Your task to perform on an android device: Check the weather Image 0: 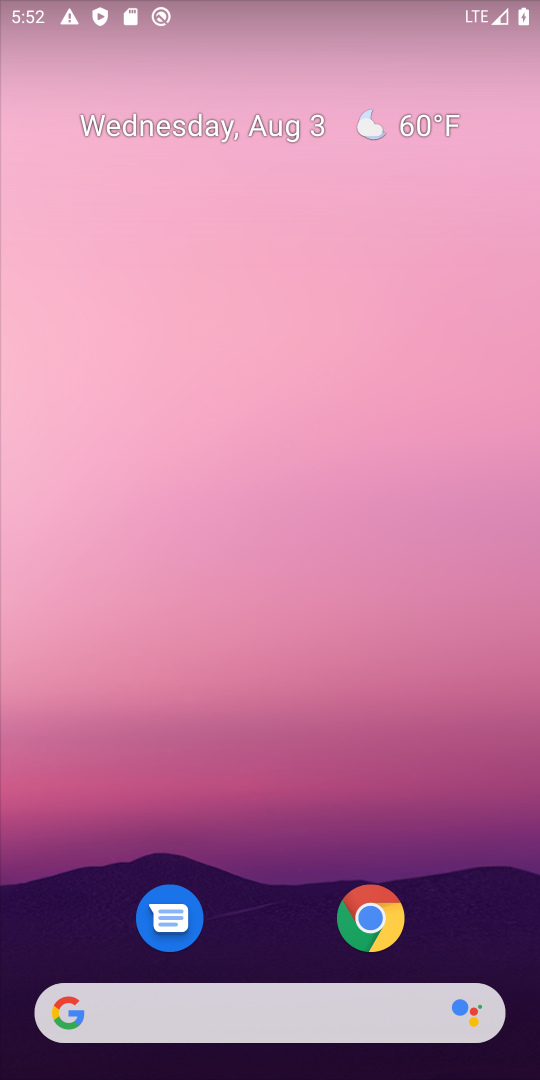
Step 0: click (385, 132)
Your task to perform on an android device: Check the weather Image 1: 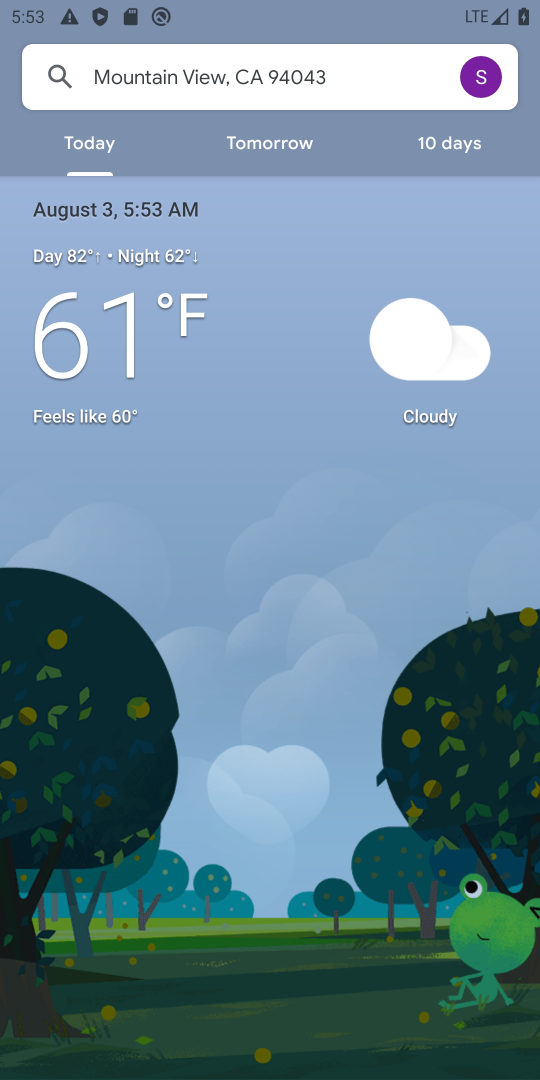
Step 1: task complete